Your task to perform on an android device: show emergency info Image 0: 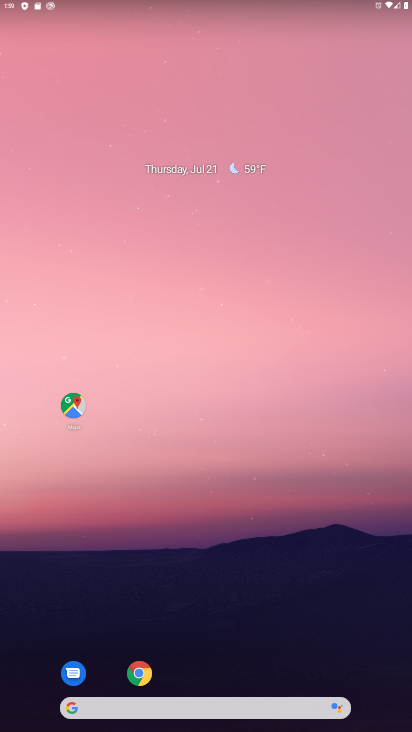
Step 0: drag from (195, 699) to (198, 227)
Your task to perform on an android device: show emergency info Image 1: 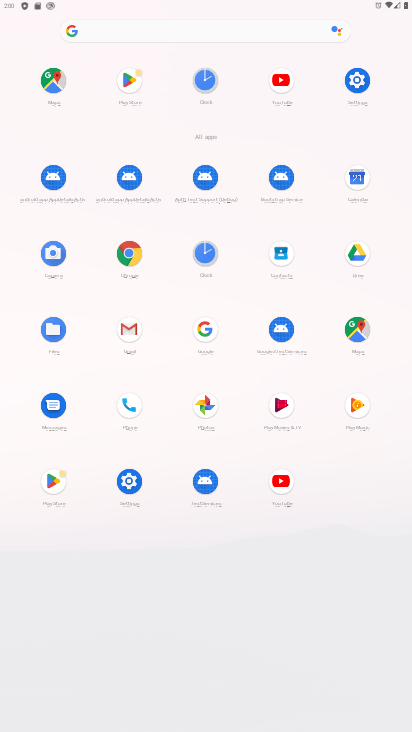
Step 1: click (125, 484)
Your task to perform on an android device: show emergency info Image 2: 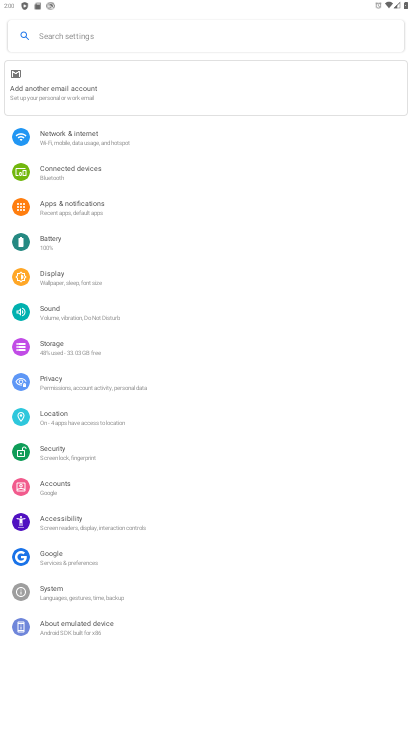
Step 2: click (73, 623)
Your task to perform on an android device: show emergency info Image 3: 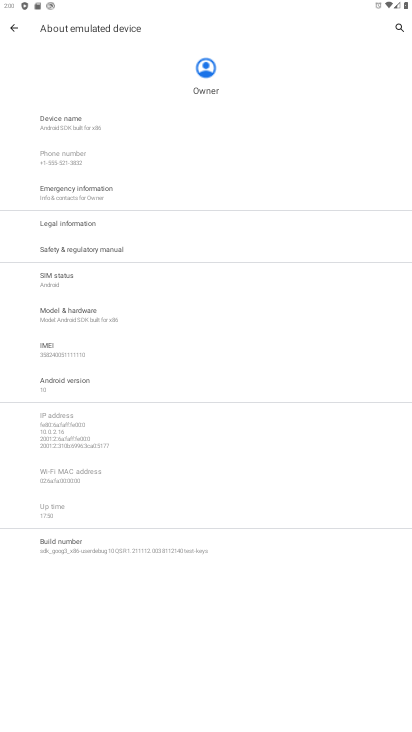
Step 3: click (90, 193)
Your task to perform on an android device: show emergency info Image 4: 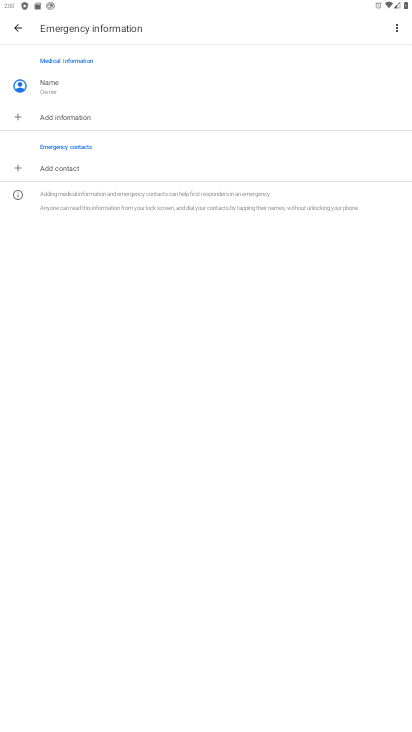
Step 4: task complete